Your task to perform on an android device: Open notification settings Image 0: 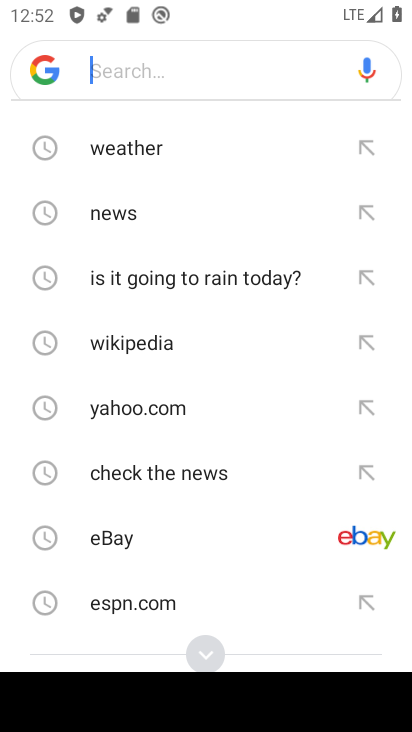
Step 0: press home button
Your task to perform on an android device: Open notification settings Image 1: 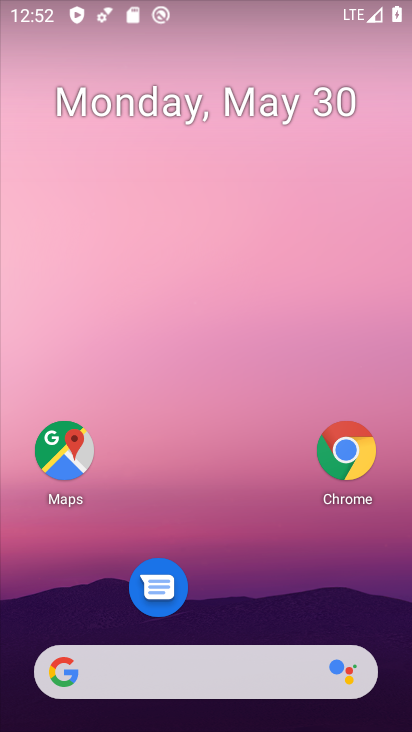
Step 1: drag from (247, 594) to (319, 143)
Your task to perform on an android device: Open notification settings Image 2: 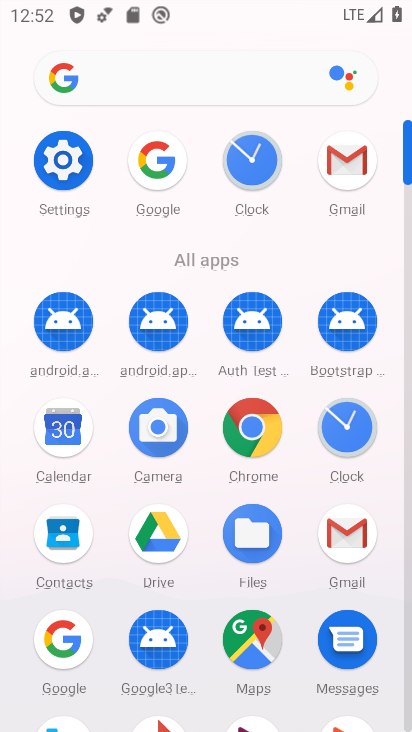
Step 2: click (69, 161)
Your task to perform on an android device: Open notification settings Image 3: 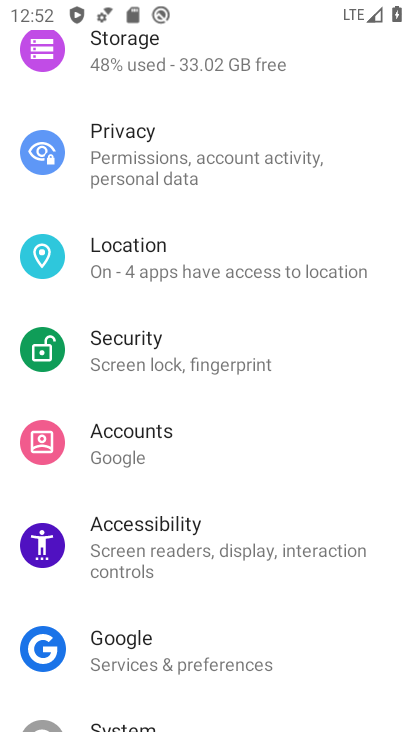
Step 3: drag from (156, 222) to (169, 501)
Your task to perform on an android device: Open notification settings Image 4: 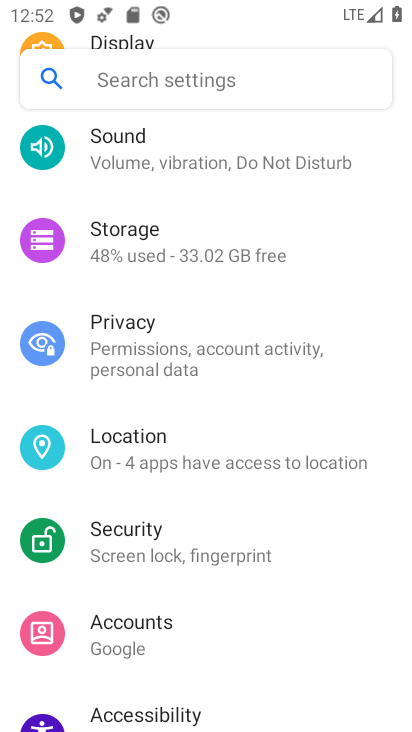
Step 4: drag from (155, 185) to (206, 574)
Your task to perform on an android device: Open notification settings Image 5: 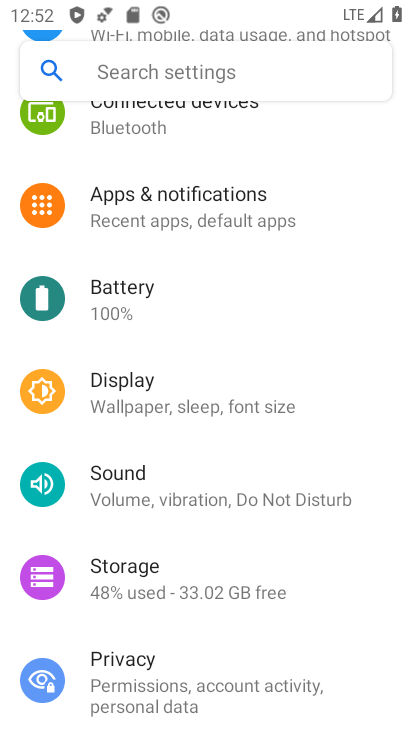
Step 5: click (188, 220)
Your task to perform on an android device: Open notification settings Image 6: 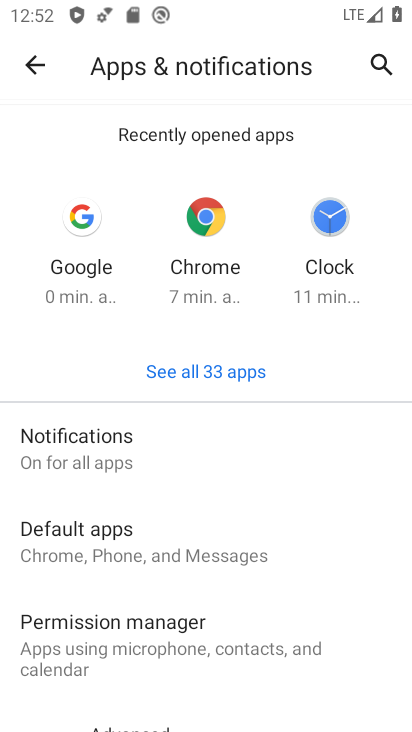
Step 6: click (134, 453)
Your task to perform on an android device: Open notification settings Image 7: 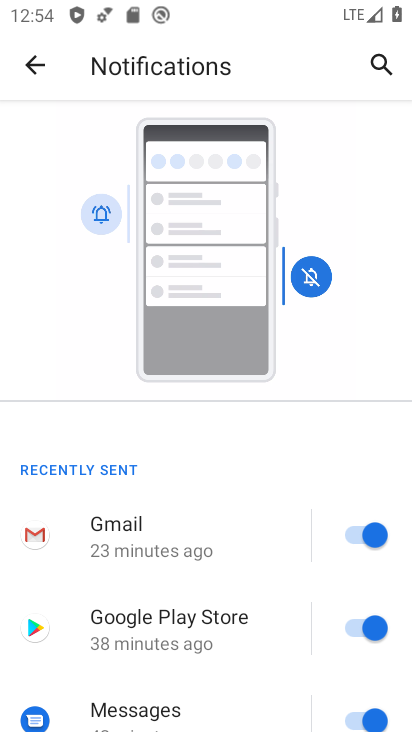
Step 7: task complete